Your task to perform on an android device: read, delete, or share a saved page in the chrome app Image 0: 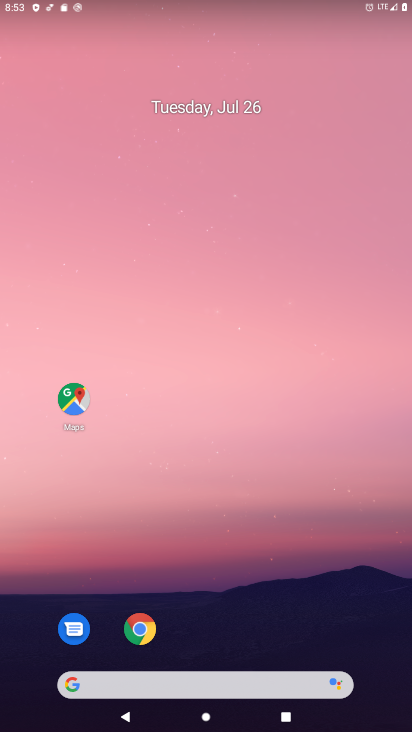
Step 0: click (134, 640)
Your task to perform on an android device: read, delete, or share a saved page in the chrome app Image 1: 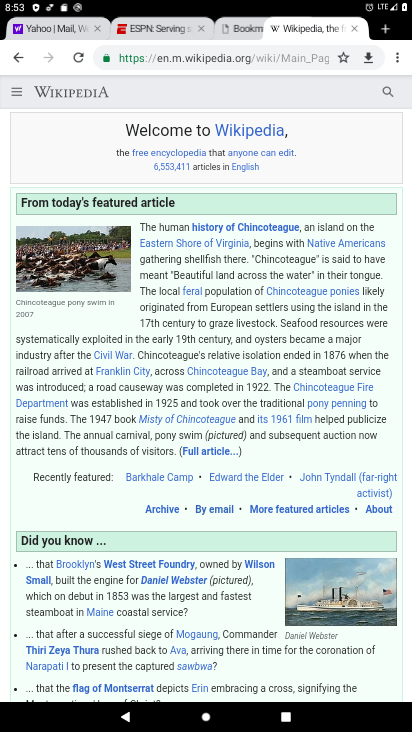
Step 1: click (395, 56)
Your task to perform on an android device: read, delete, or share a saved page in the chrome app Image 2: 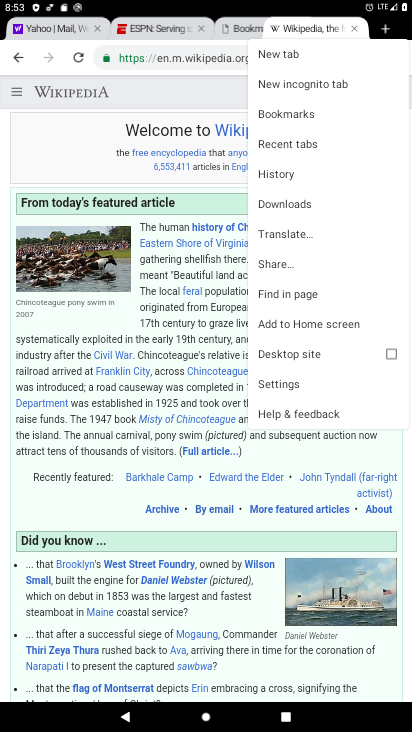
Step 2: click (395, 56)
Your task to perform on an android device: read, delete, or share a saved page in the chrome app Image 3: 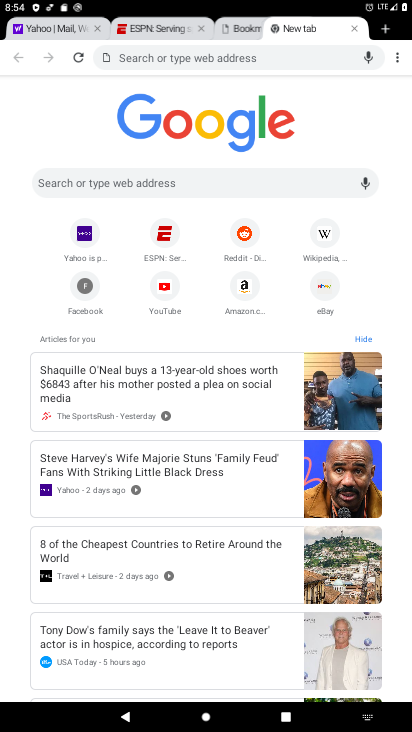
Step 3: click (402, 60)
Your task to perform on an android device: read, delete, or share a saved page in the chrome app Image 4: 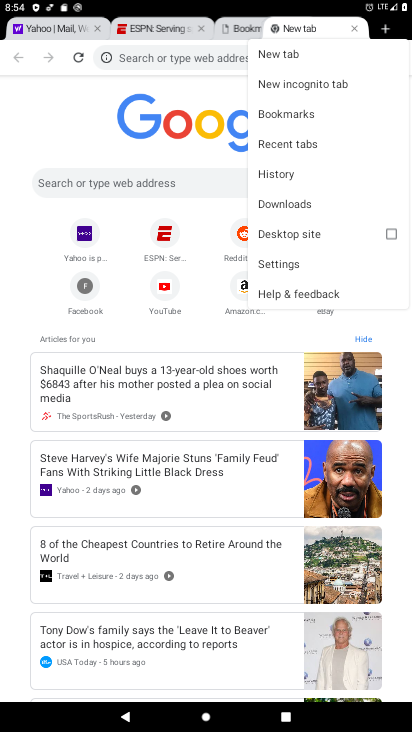
Step 4: click (302, 211)
Your task to perform on an android device: read, delete, or share a saved page in the chrome app Image 5: 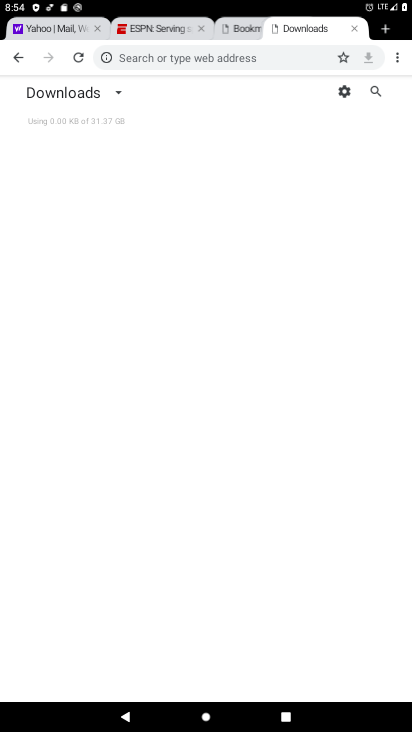
Step 5: task complete